Your task to perform on an android device: star an email in the gmail app Image 0: 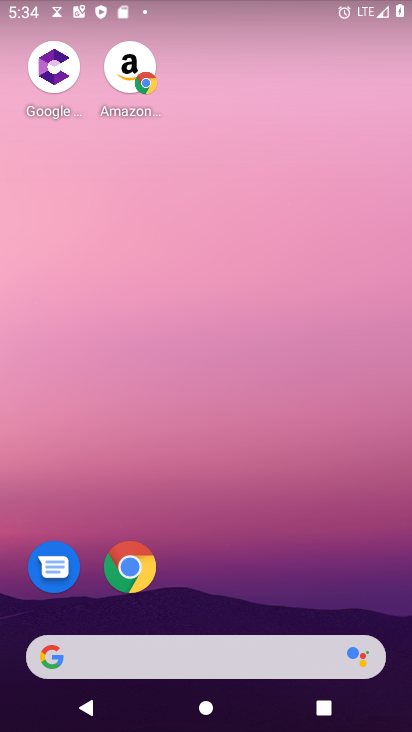
Step 0: drag from (278, 678) to (262, 36)
Your task to perform on an android device: star an email in the gmail app Image 1: 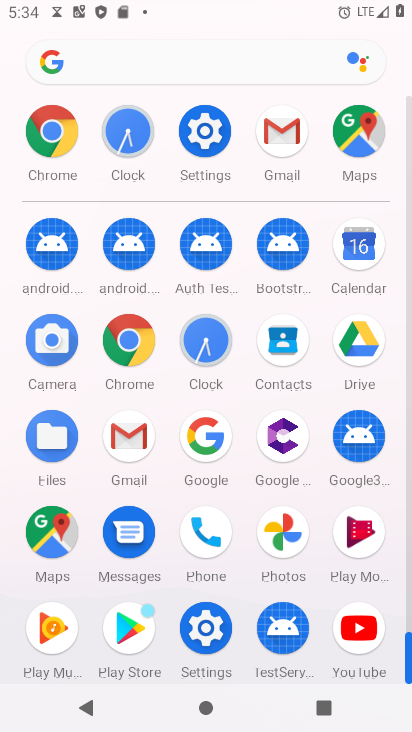
Step 1: click (123, 436)
Your task to perform on an android device: star an email in the gmail app Image 2: 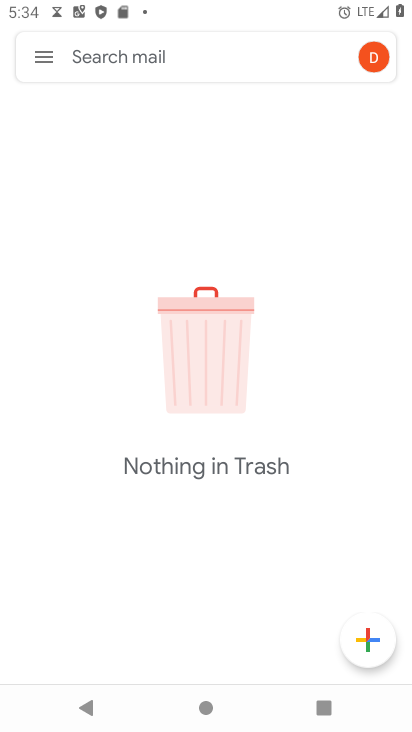
Step 2: click (26, 60)
Your task to perform on an android device: star an email in the gmail app Image 3: 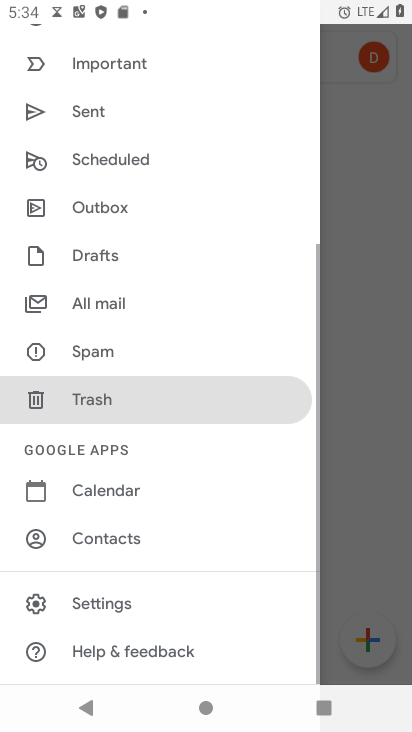
Step 3: drag from (165, 212) to (203, 568)
Your task to perform on an android device: star an email in the gmail app Image 4: 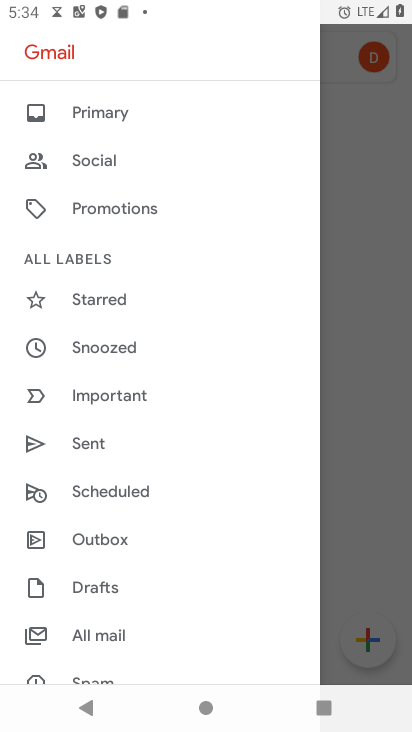
Step 4: click (106, 297)
Your task to perform on an android device: star an email in the gmail app Image 5: 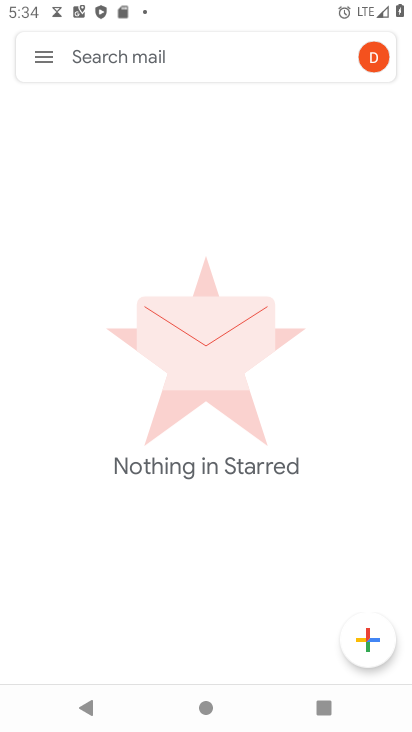
Step 5: task complete